Your task to perform on an android device: Find coffee shops on Maps Image 0: 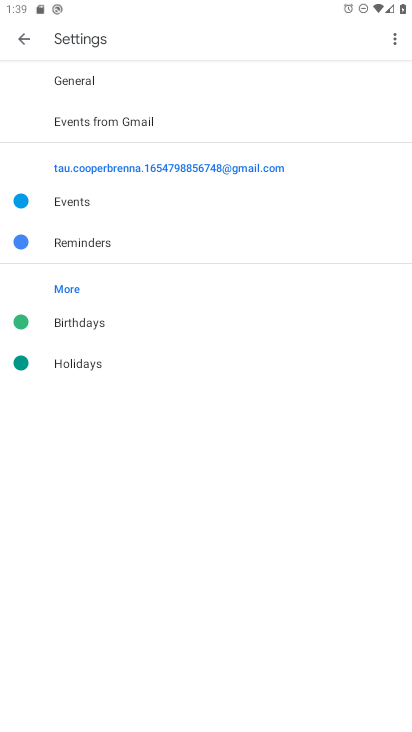
Step 0: press home button
Your task to perform on an android device: Find coffee shops on Maps Image 1: 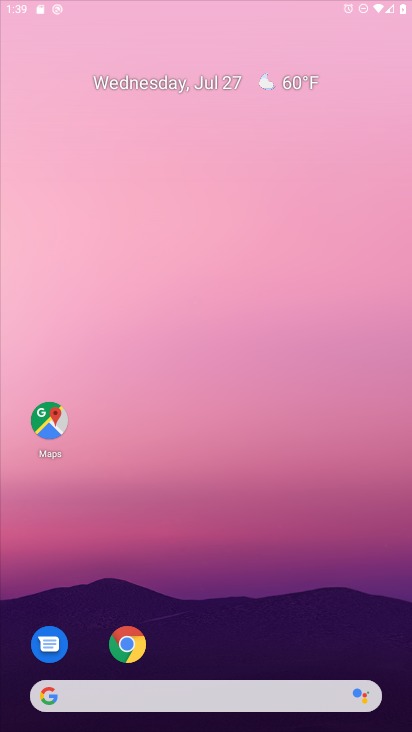
Step 1: drag from (249, 574) to (341, 190)
Your task to perform on an android device: Find coffee shops on Maps Image 2: 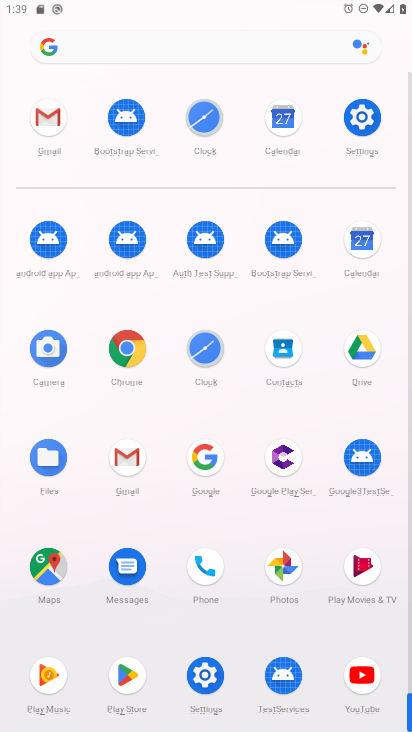
Step 2: click (41, 562)
Your task to perform on an android device: Find coffee shops on Maps Image 3: 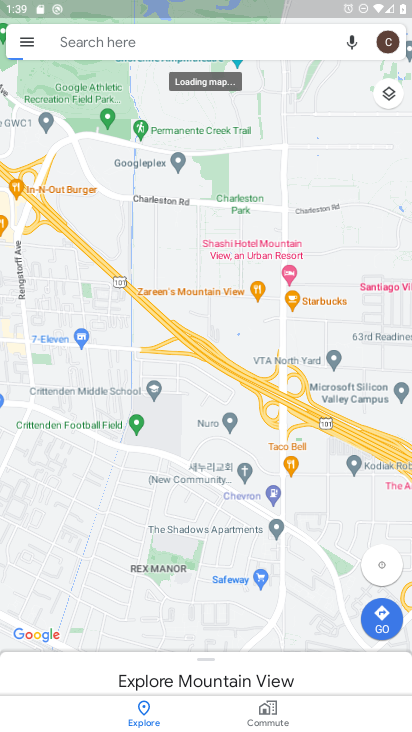
Step 3: click (119, 40)
Your task to perform on an android device: Find coffee shops on Maps Image 4: 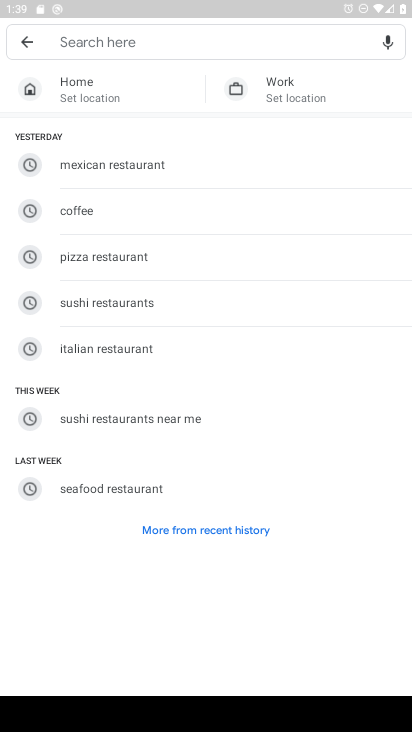
Step 4: click (108, 213)
Your task to perform on an android device: Find coffee shops on Maps Image 5: 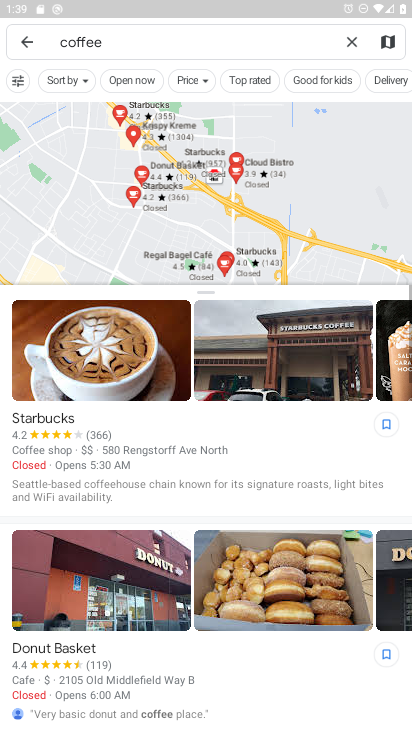
Step 5: task complete